Your task to perform on an android device: Open Chrome and go to settings Image 0: 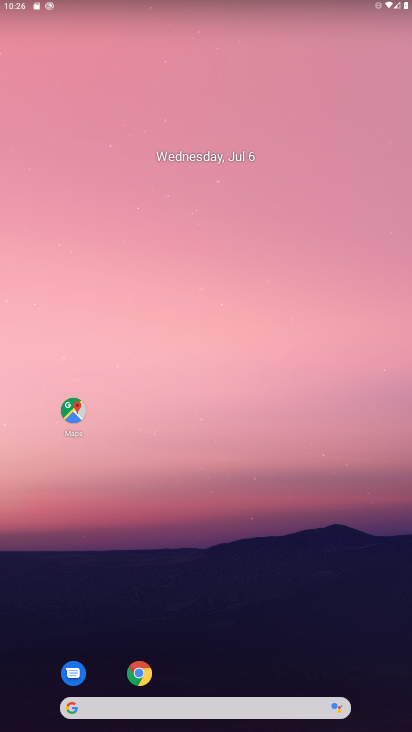
Step 0: click (139, 665)
Your task to perform on an android device: Open Chrome and go to settings Image 1: 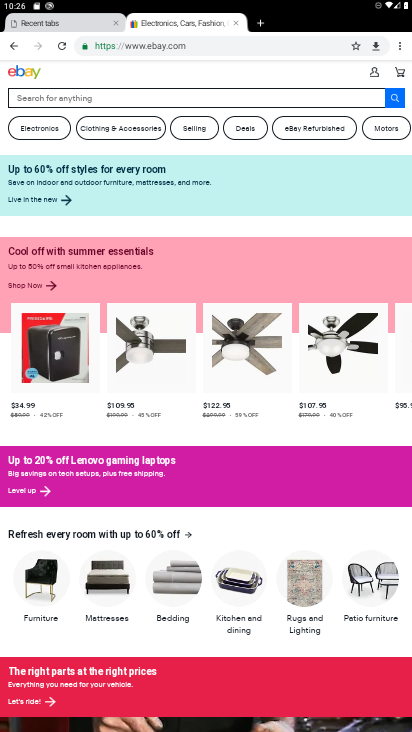
Step 1: click (400, 51)
Your task to perform on an android device: Open Chrome and go to settings Image 2: 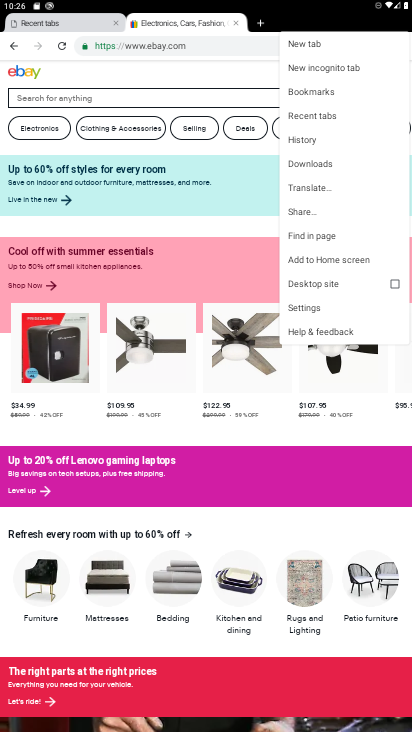
Step 2: click (306, 305)
Your task to perform on an android device: Open Chrome and go to settings Image 3: 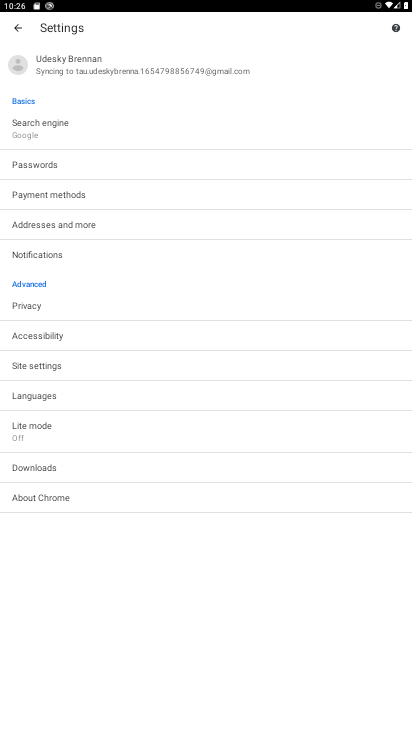
Step 3: task complete